Your task to perform on an android device: Open the stopwatch Image 0: 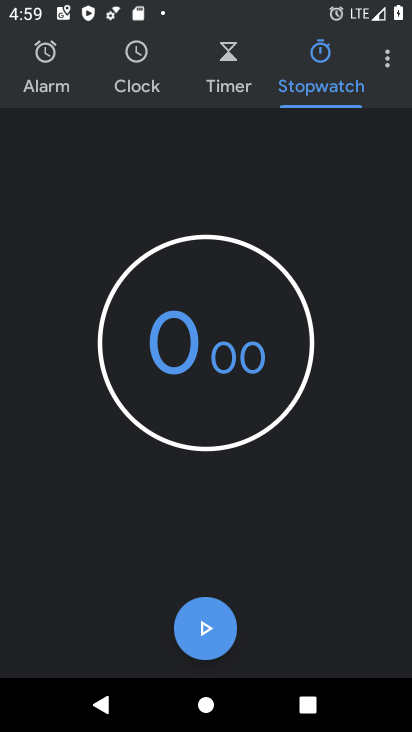
Step 0: task complete